Your task to perform on an android device: Open Google Chrome Image 0: 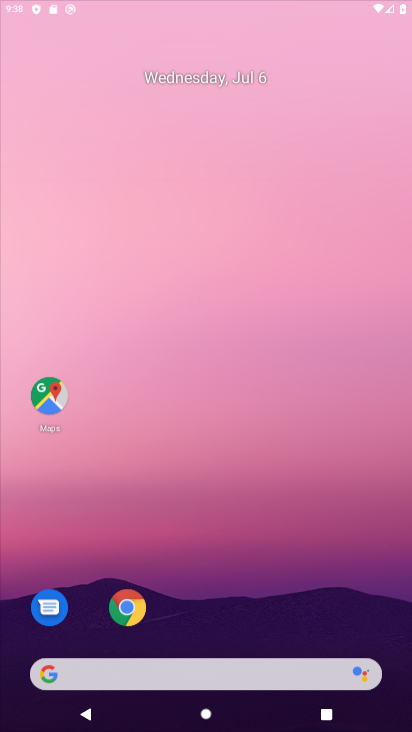
Step 0: drag from (193, 595) to (178, 159)
Your task to perform on an android device: Open Google Chrome Image 1: 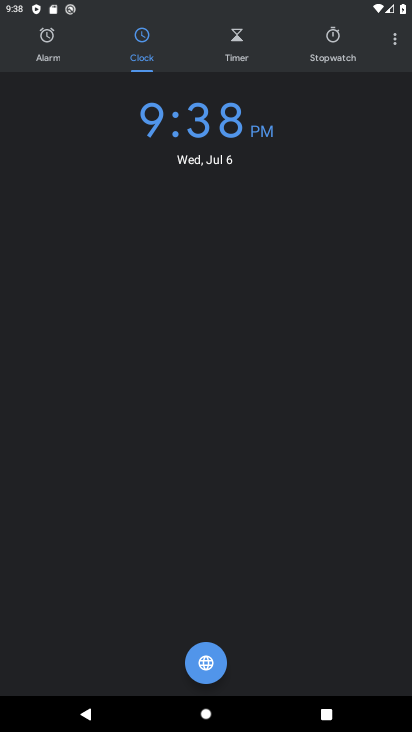
Step 1: press home button
Your task to perform on an android device: Open Google Chrome Image 2: 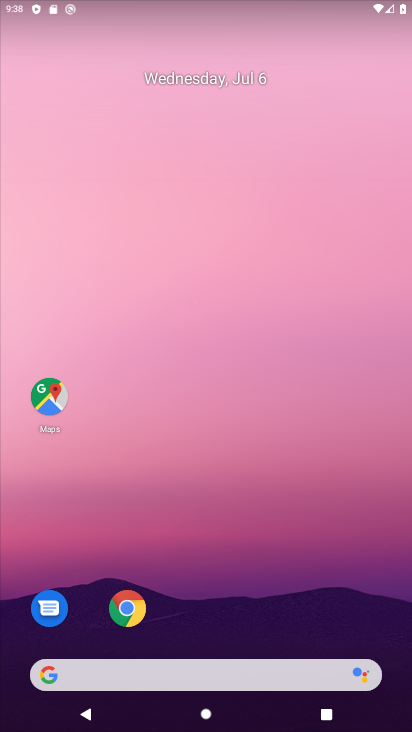
Step 2: click (113, 610)
Your task to perform on an android device: Open Google Chrome Image 3: 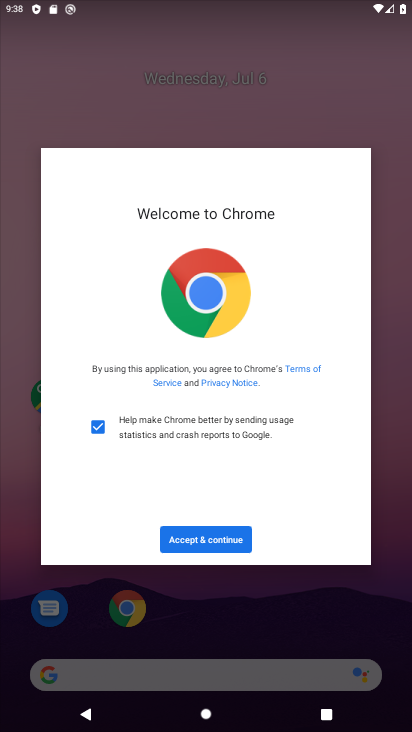
Step 3: click (214, 542)
Your task to perform on an android device: Open Google Chrome Image 4: 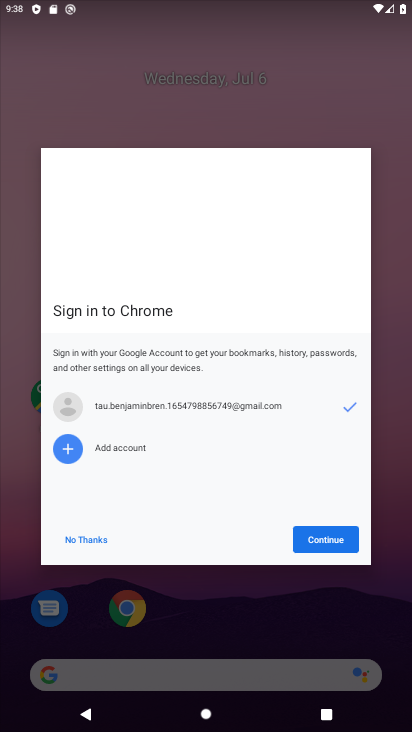
Step 4: click (321, 543)
Your task to perform on an android device: Open Google Chrome Image 5: 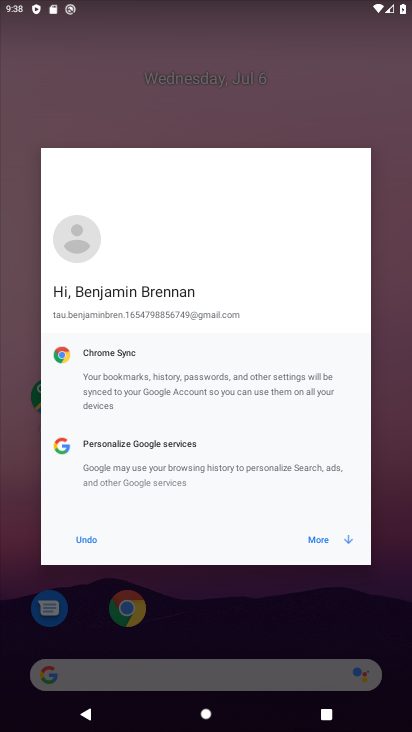
Step 5: click (319, 542)
Your task to perform on an android device: Open Google Chrome Image 6: 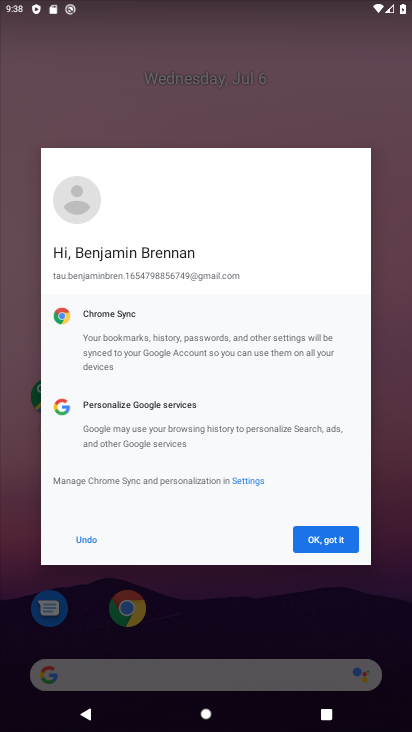
Step 6: click (334, 547)
Your task to perform on an android device: Open Google Chrome Image 7: 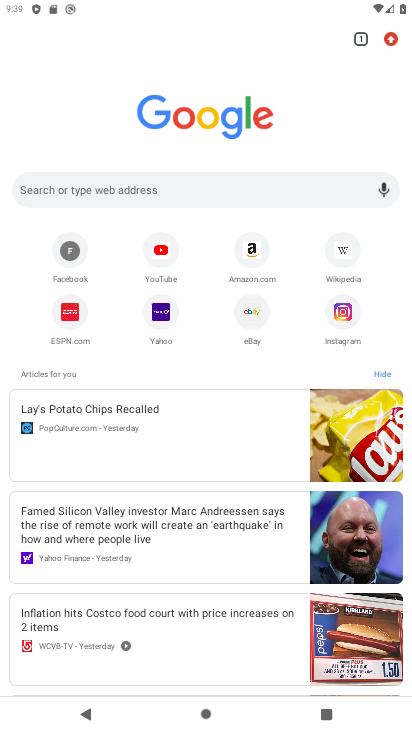
Step 7: task complete